Your task to perform on an android device: Open calendar and show me the fourth week of next month Image 0: 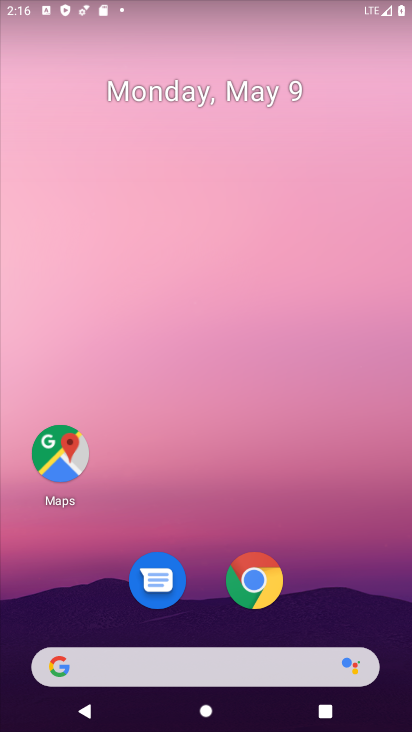
Step 0: drag from (337, 586) to (237, 90)
Your task to perform on an android device: Open calendar and show me the fourth week of next month Image 1: 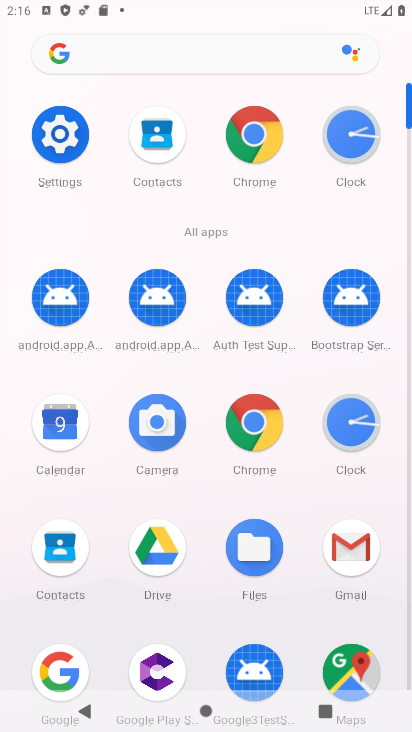
Step 1: click (61, 423)
Your task to perform on an android device: Open calendar and show me the fourth week of next month Image 2: 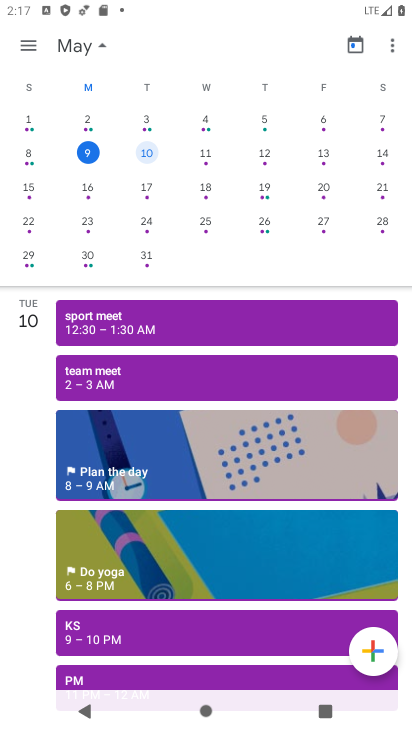
Step 2: click (99, 45)
Your task to perform on an android device: Open calendar and show me the fourth week of next month Image 3: 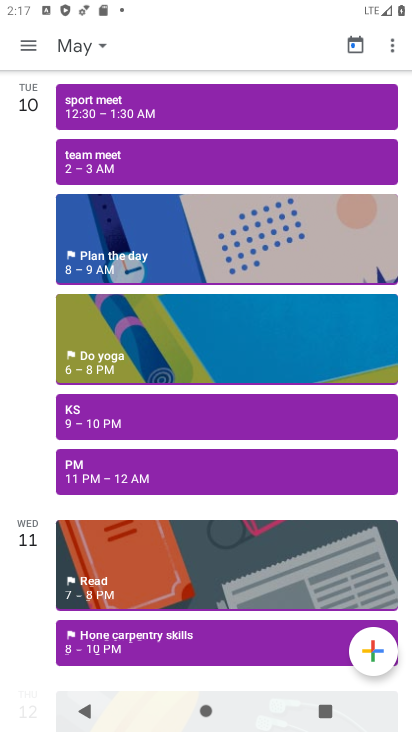
Step 3: click (90, 48)
Your task to perform on an android device: Open calendar and show me the fourth week of next month Image 4: 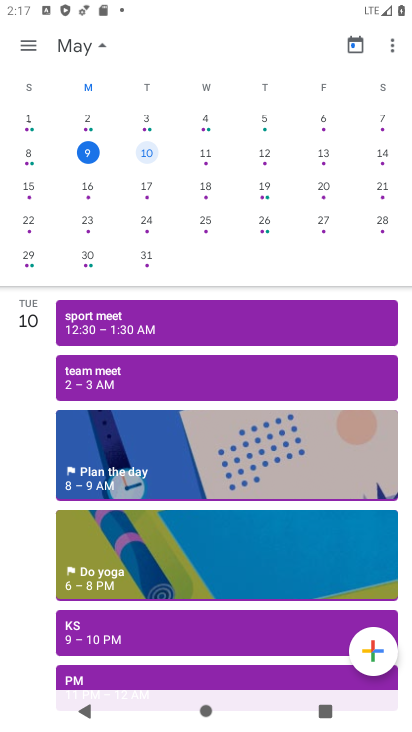
Step 4: drag from (357, 181) to (0, 58)
Your task to perform on an android device: Open calendar and show me the fourth week of next month Image 5: 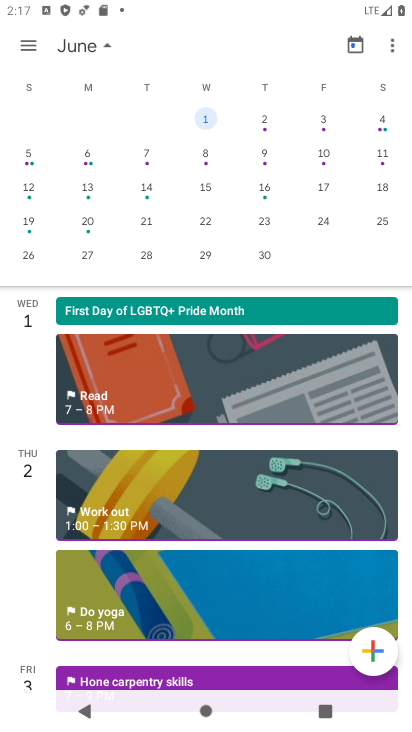
Step 5: click (28, 43)
Your task to perform on an android device: Open calendar and show me the fourth week of next month Image 6: 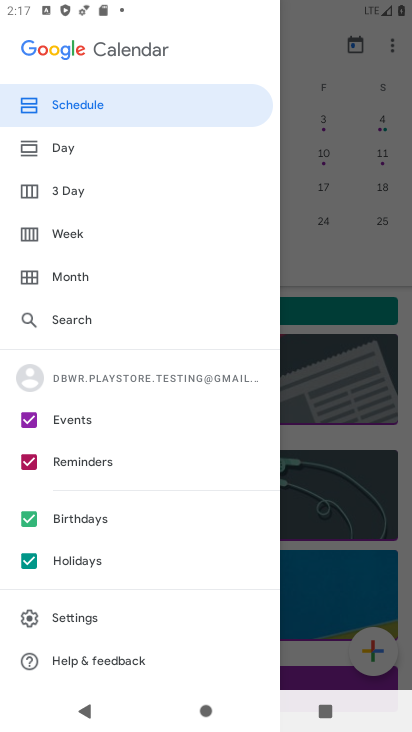
Step 6: click (67, 236)
Your task to perform on an android device: Open calendar and show me the fourth week of next month Image 7: 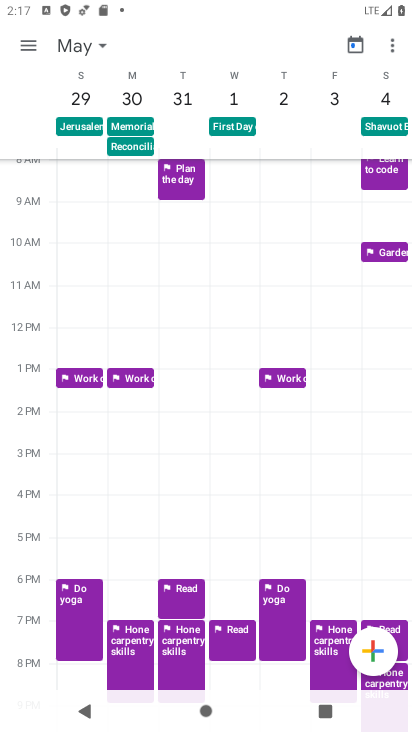
Step 7: click (89, 41)
Your task to perform on an android device: Open calendar and show me the fourth week of next month Image 8: 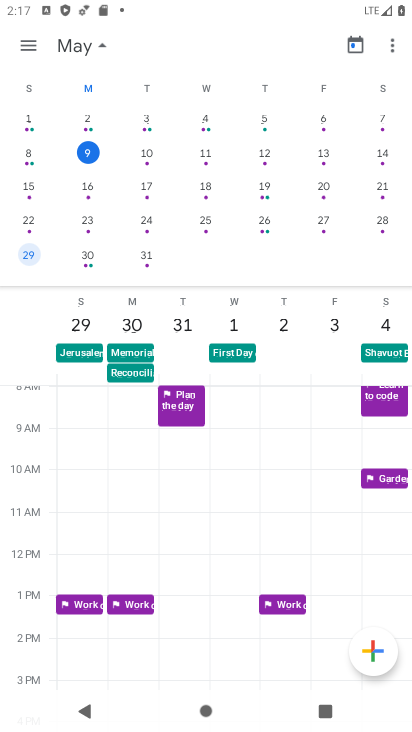
Step 8: drag from (341, 215) to (1, 249)
Your task to perform on an android device: Open calendar and show me the fourth week of next month Image 9: 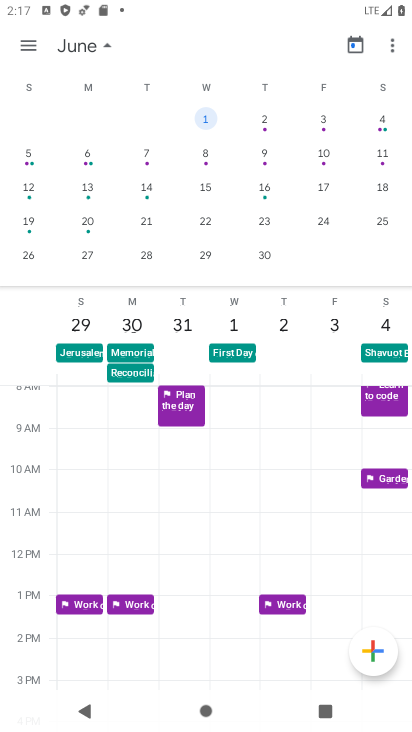
Step 9: click (35, 224)
Your task to perform on an android device: Open calendar and show me the fourth week of next month Image 10: 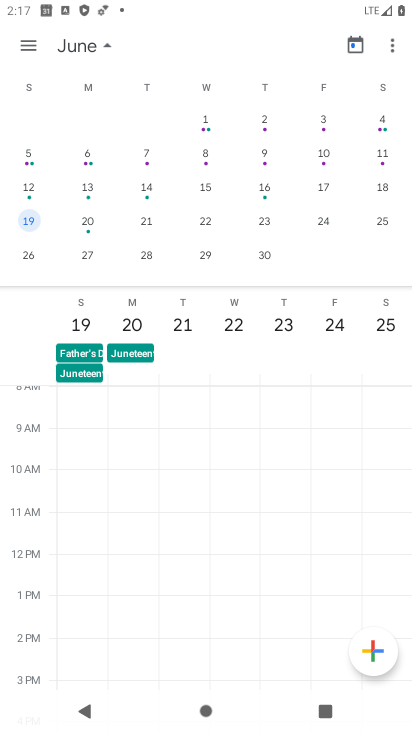
Step 10: task complete